Your task to perform on an android device: stop showing notifications on the lock screen Image 0: 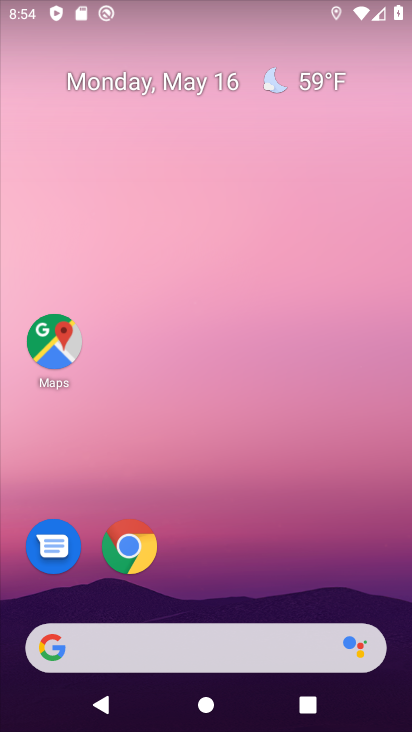
Step 0: drag from (232, 446) to (302, 3)
Your task to perform on an android device: stop showing notifications on the lock screen Image 1: 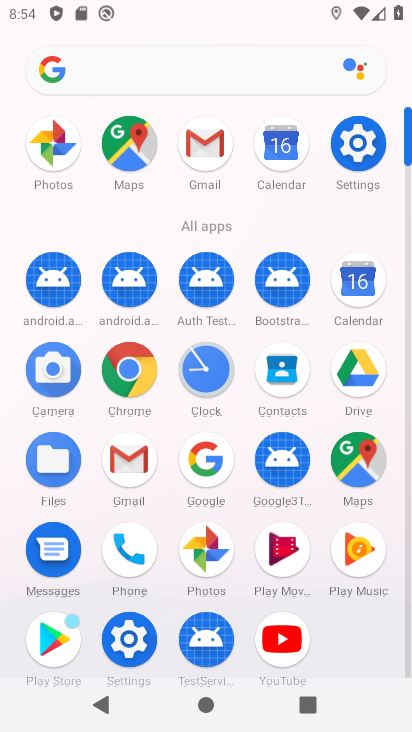
Step 1: click (355, 149)
Your task to perform on an android device: stop showing notifications on the lock screen Image 2: 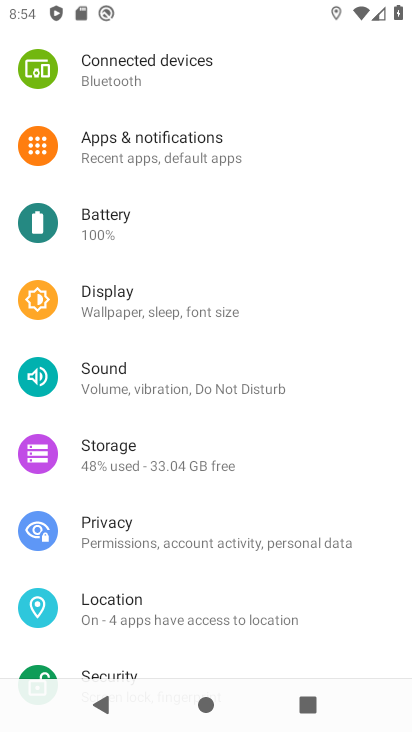
Step 2: click (192, 163)
Your task to perform on an android device: stop showing notifications on the lock screen Image 3: 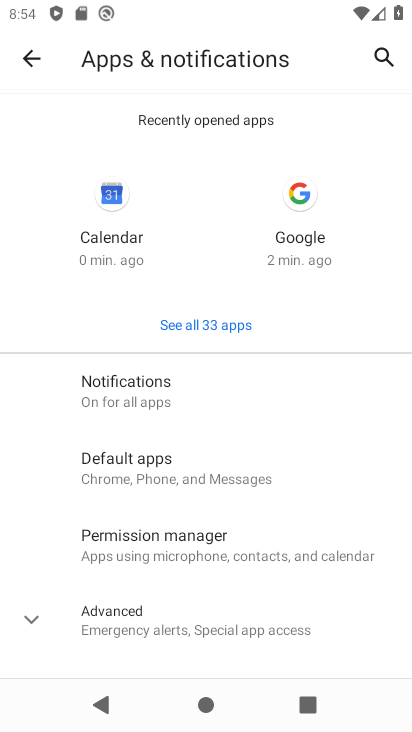
Step 3: click (113, 386)
Your task to perform on an android device: stop showing notifications on the lock screen Image 4: 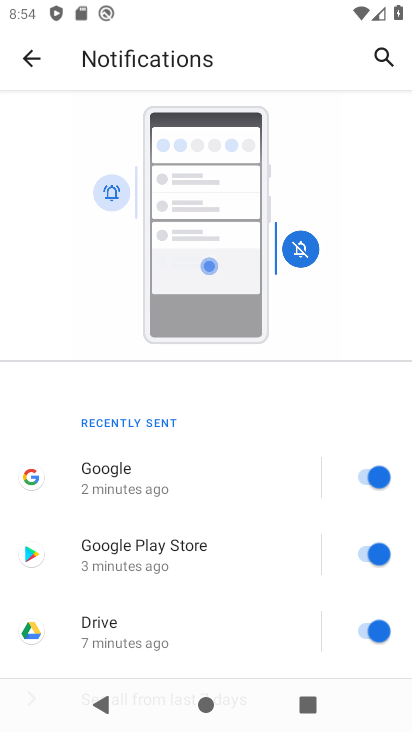
Step 4: drag from (134, 599) to (216, 144)
Your task to perform on an android device: stop showing notifications on the lock screen Image 5: 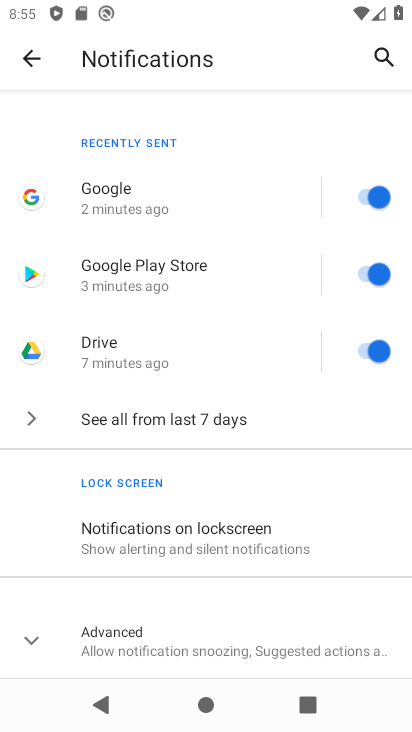
Step 5: click (144, 534)
Your task to perform on an android device: stop showing notifications on the lock screen Image 6: 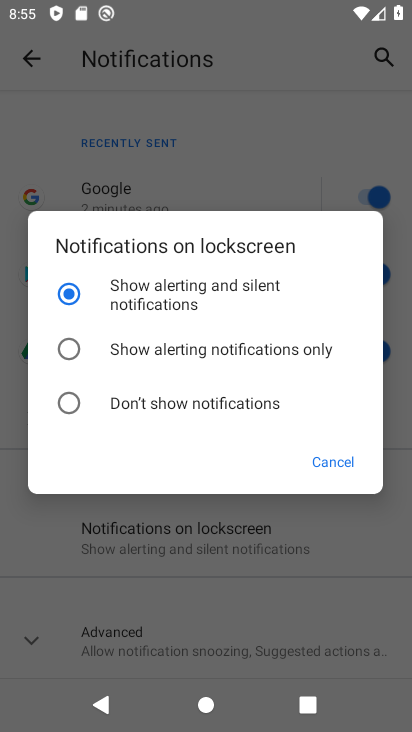
Step 6: click (108, 405)
Your task to perform on an android device: stop showing notifications on the lock screen Image 7: 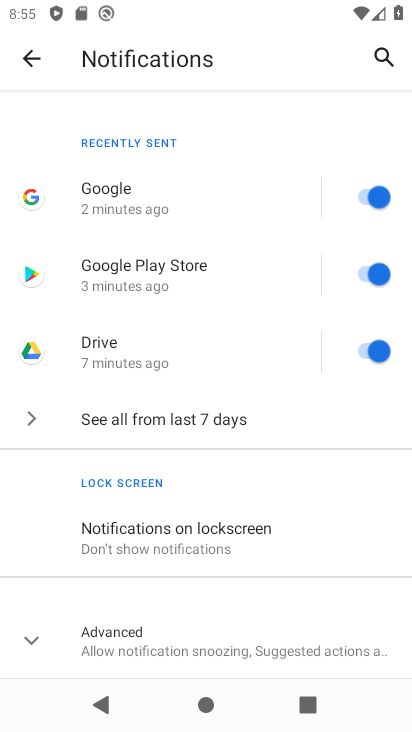
Step 7: task complete